Your task to perform on an android device: see creations saved in the google photos Image 0: 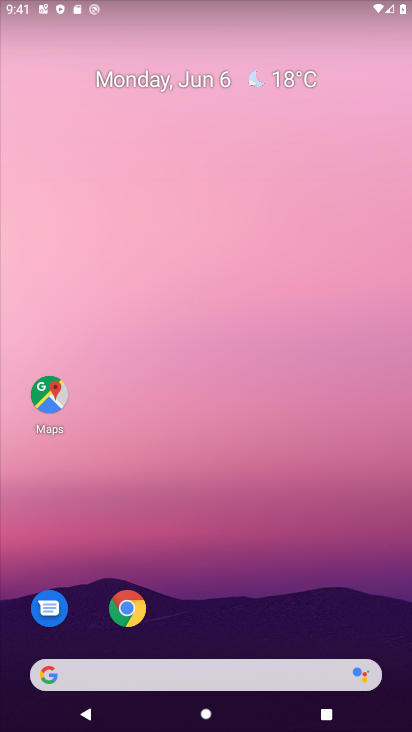
Step 0: drag from (303, 600) to (238, 168)
Your task to perform on an android device: see creations saved in the google photos Image 1: 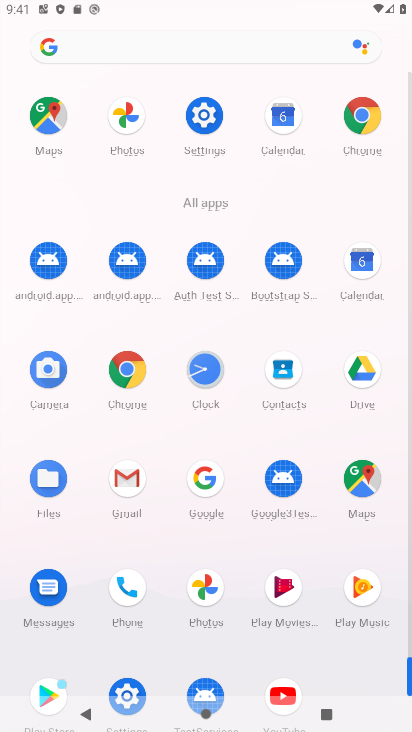
Step 1: click (128, 114)
Your task to perform on an android device: see creations saved in the google photos Image 2: 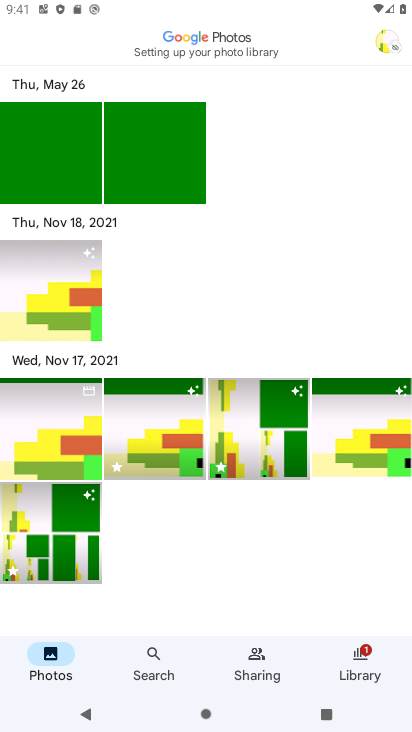
Step 2: click (155, 661)
Your task to perform on an android device: see creations saved in the google photos Image 3: 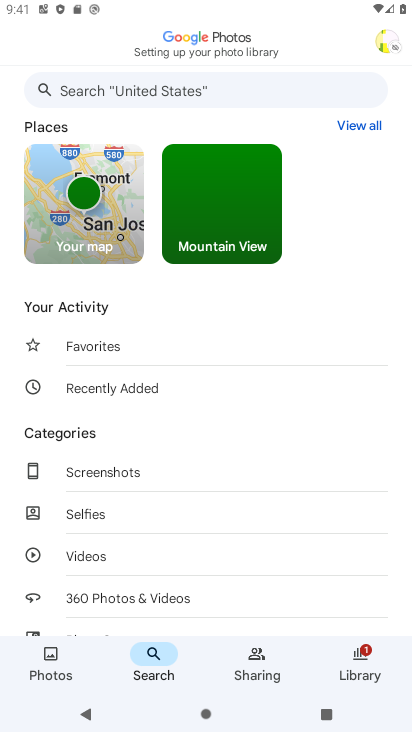
Step 3: drag from (180, 519) to (182, 470)
Your task to perform on an android device: see creations saved in the google photos Image 4: 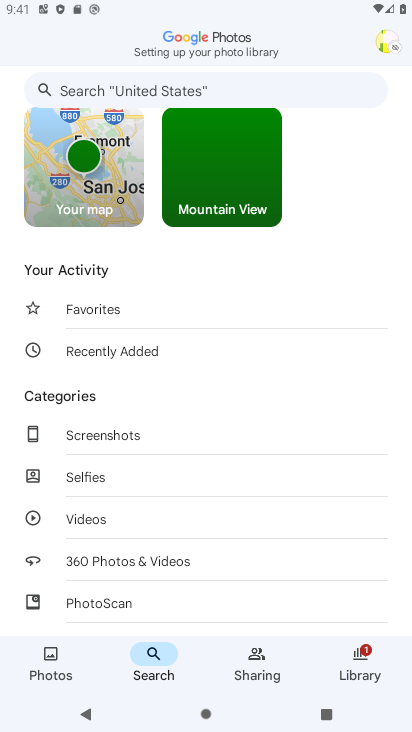
Step 4: drag from (162, 580) to (157, 492)
Your task to perform on an android device: see creations saved in the google photos Image 5: 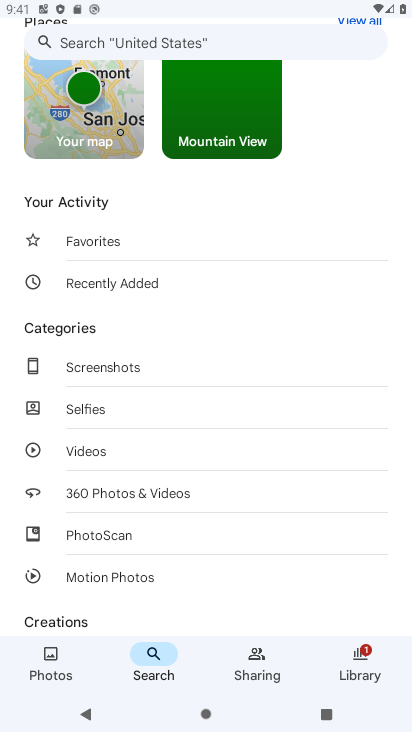
Step 5: drag from (165, 569) to (163, 465)
Your task to perform on an android device: see creations saved in the google photos Image 6: 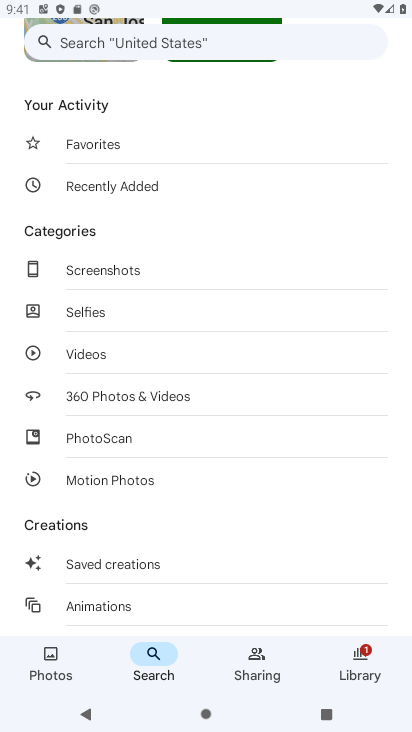
Step 6: click (141, 563)
Your task to perform on an android device: see creations saved in the google photos Image 7: 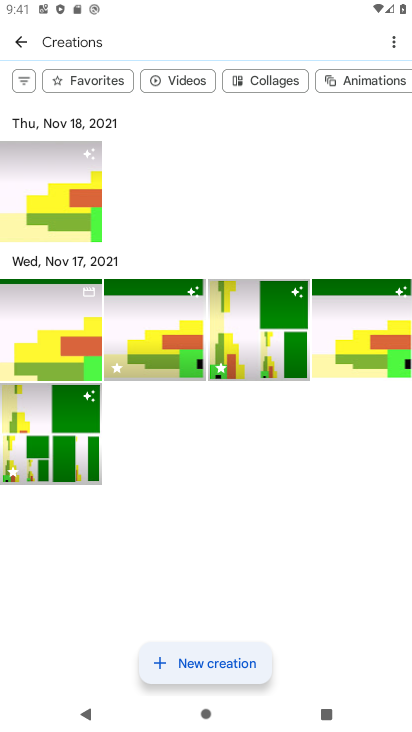
Step 7: task complete